Your task to perform on an android device: Check the news Image 0: 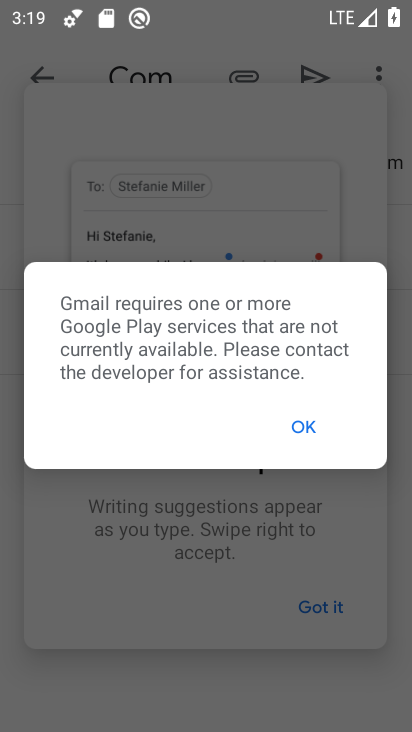
Step 0: press home button
Your task to perform on an android device: Check the news Image 1: 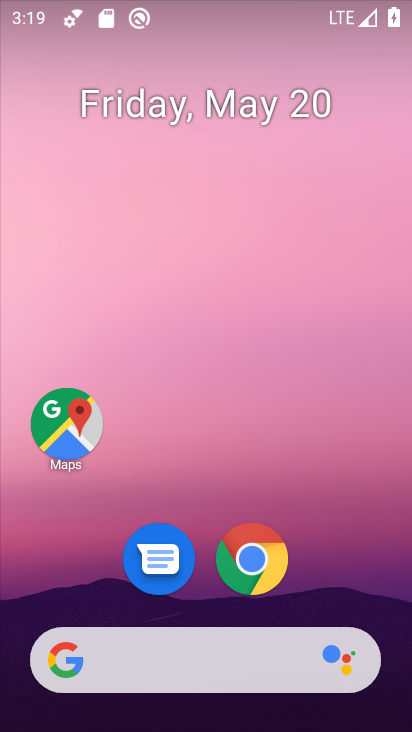
Step 1: click (223, 663)
Your task to perform on an android device: Check the news Image 2: 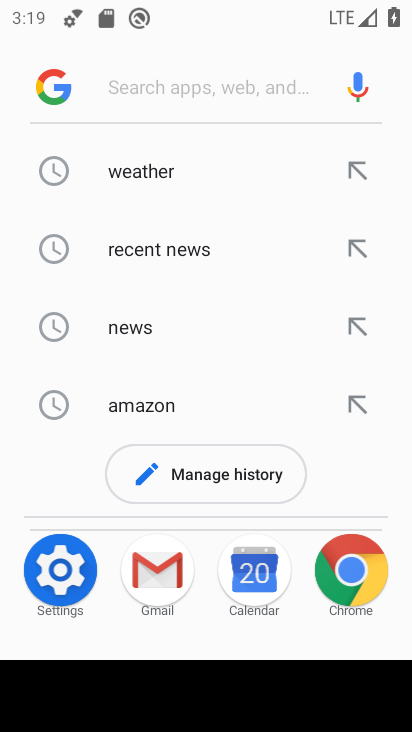
Step 2: click (135, 327)
Your task to perform on an android device: Check the news Image 3: 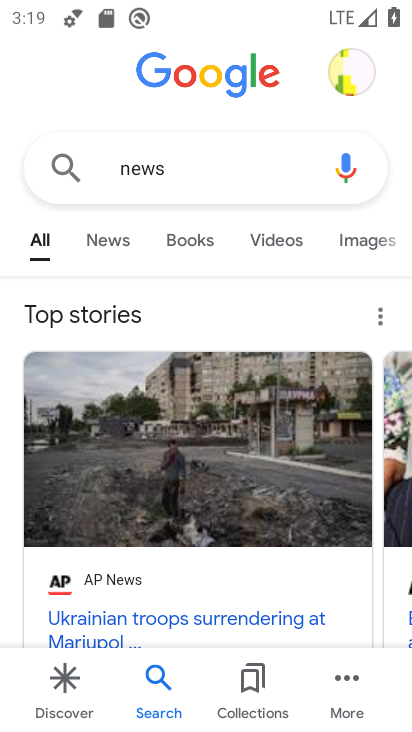
Step 3: click (116, 235)
Your task to perform on an android device: Check the news Image 4: 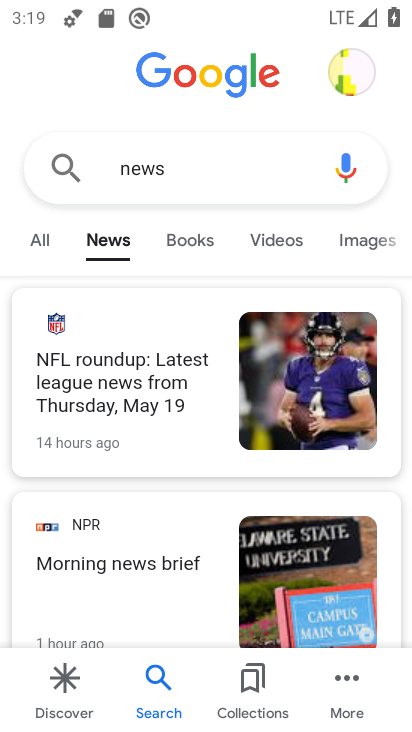
Step 4: task complete